Your task to perform on an android device: open app "Firefox Browser" (install if not already installed) Image 0: 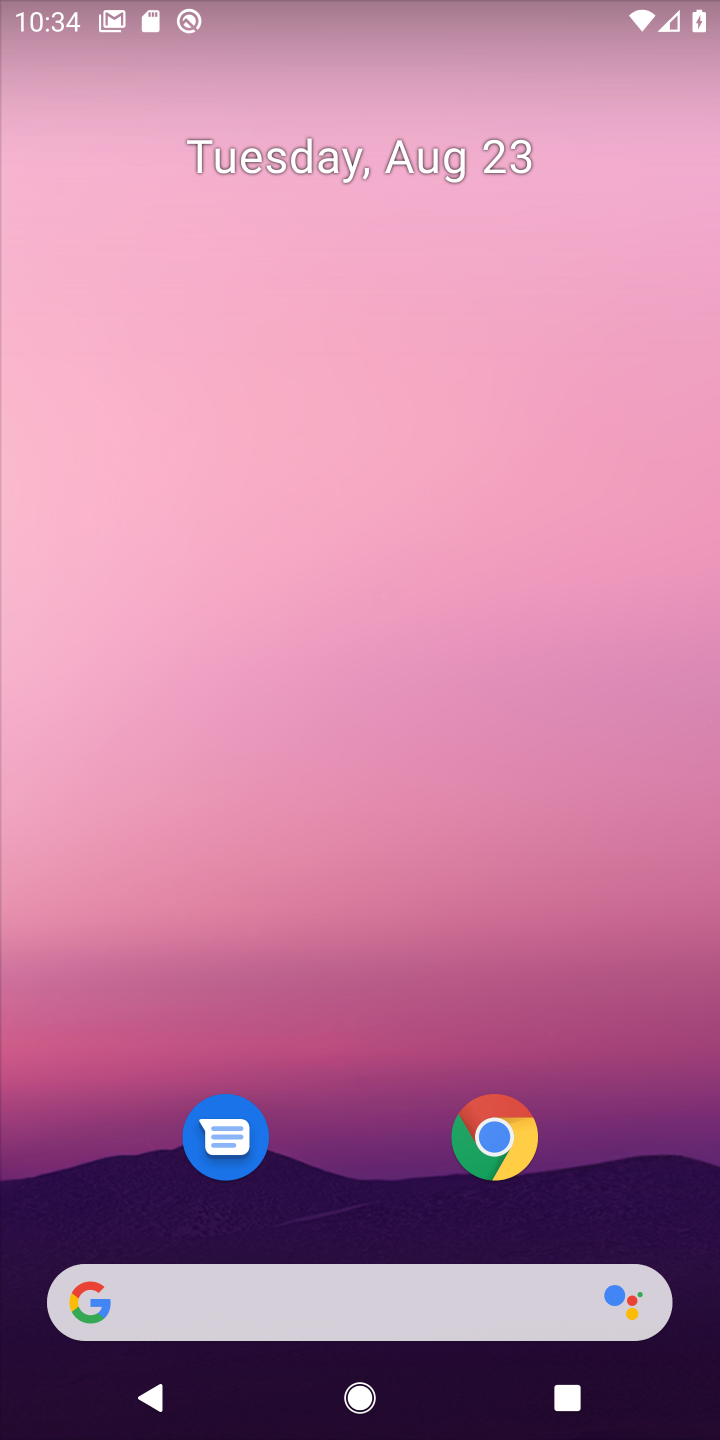
Step 0: drag from (448, 1080) to (459, 226)
Your task to perform on an android device: open app "Firefox Browser" (install if not already installed) Image 1: 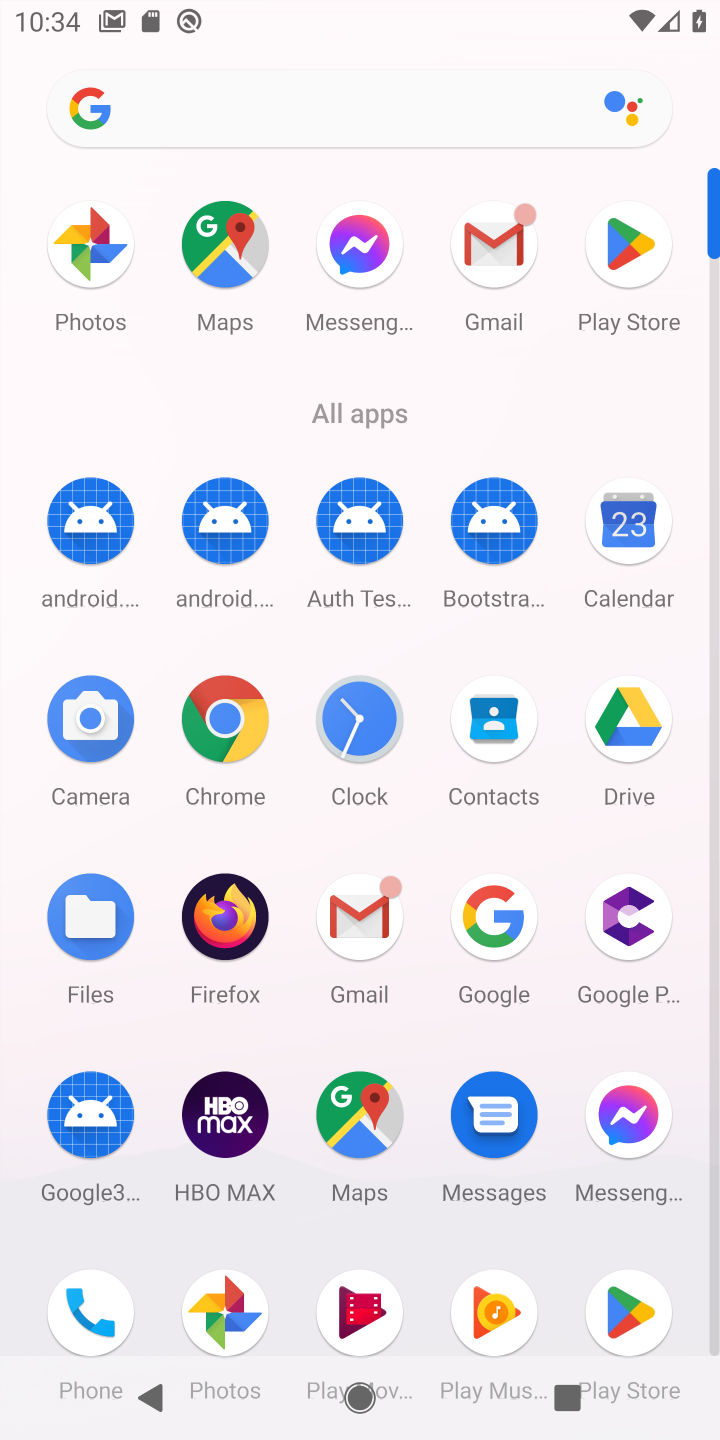
Step 1: click (618, 263)
Your task to perform on an android device: open app "Firefox Browser" (install if not already installed) Image 2: 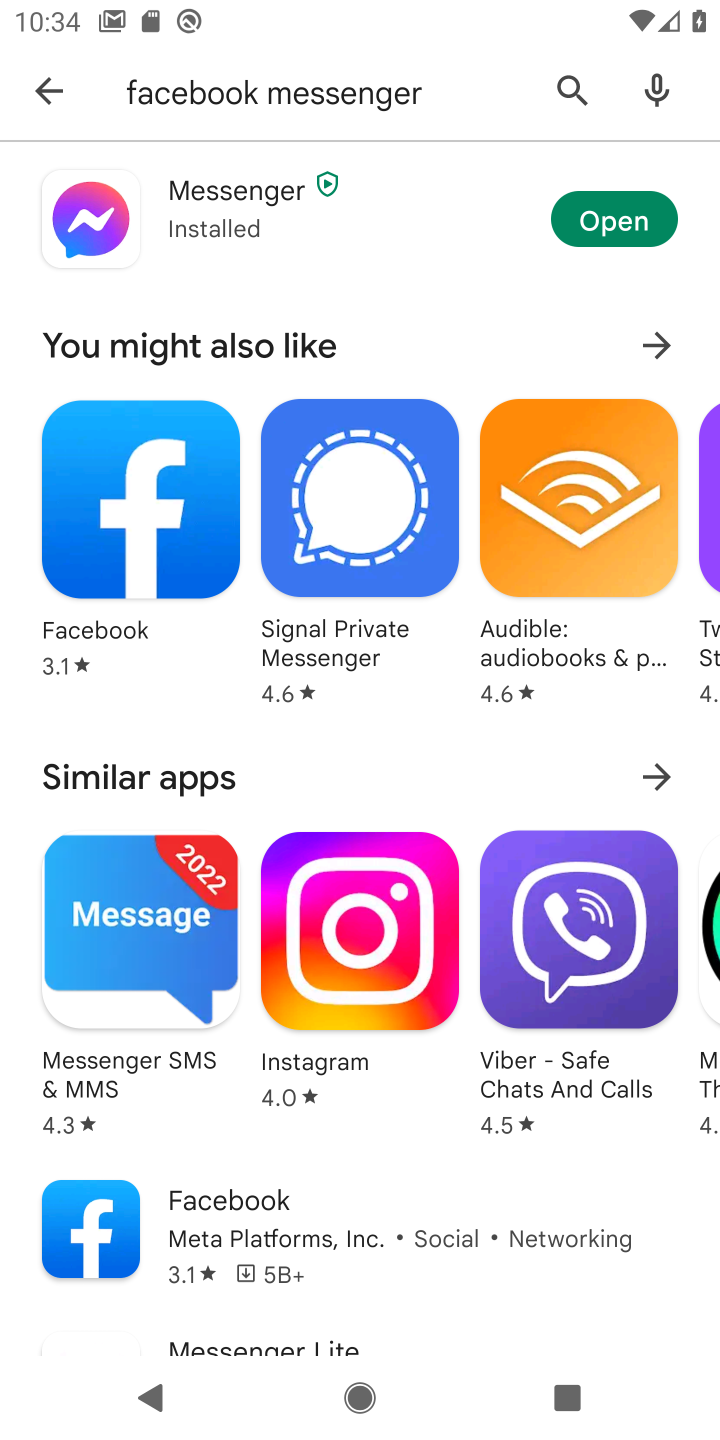
Step 2: click (236, 99)
Your task to perform on an android device: open app "Firefox Browser" (install if not already installed) Image 3: 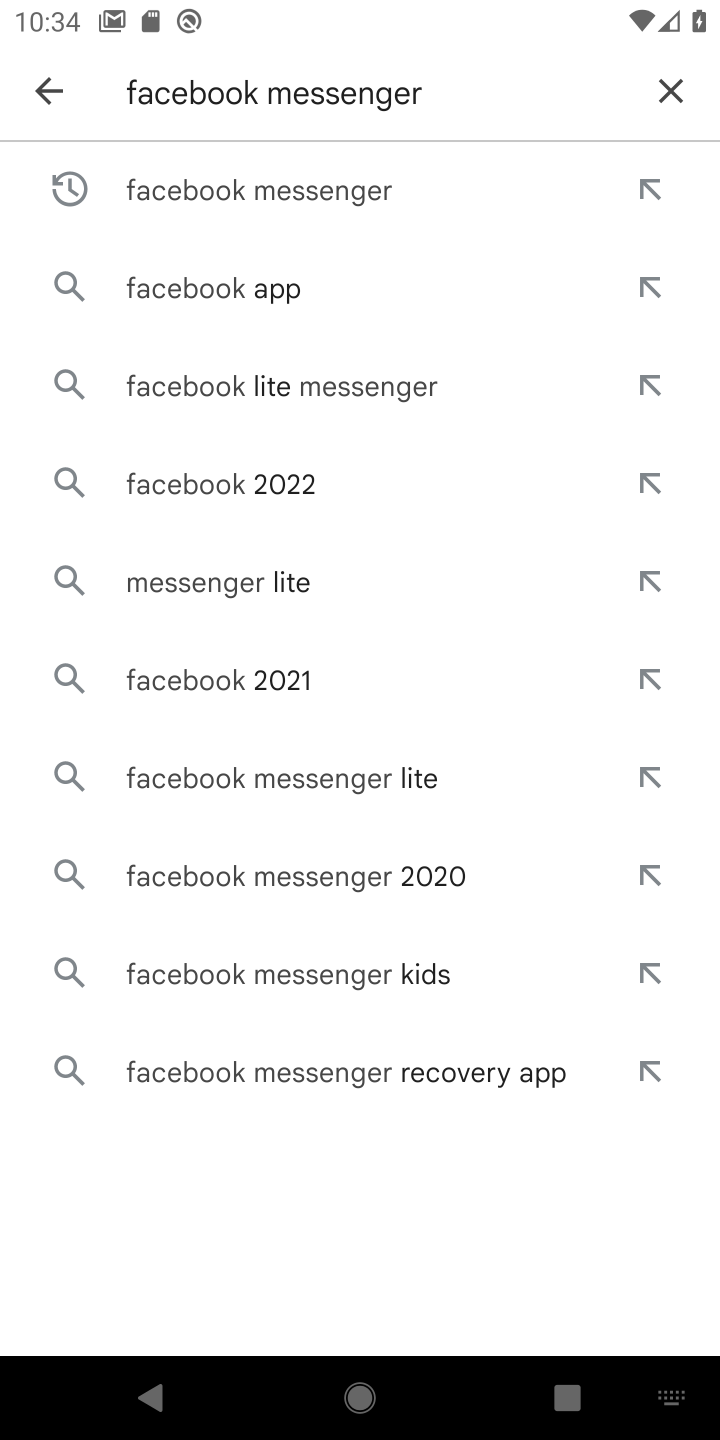
Step 3: click (651, 83)
Your task to perform on an android device: open app "Firefox Browser" (install if not already installed) Image 4: 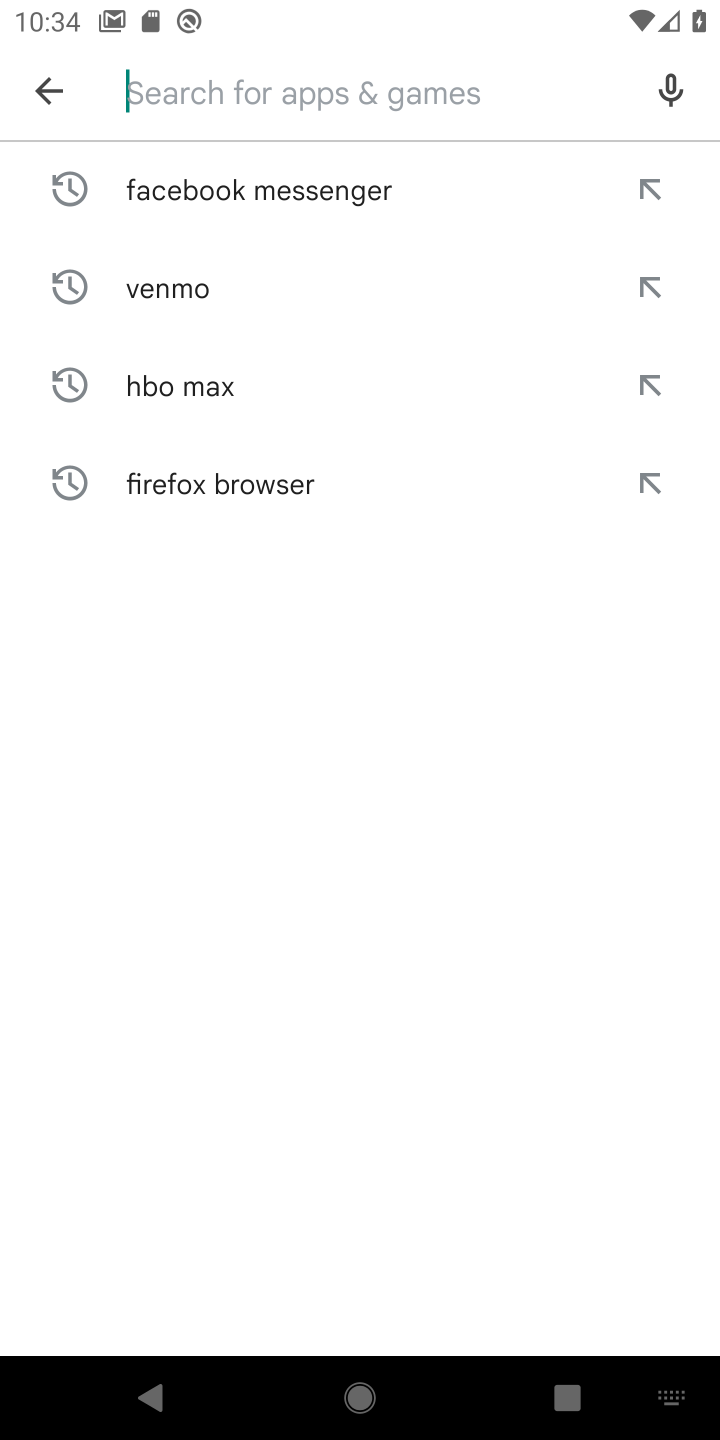
Step 4: type "firefox browser"
Your task to perform on an android device: open app "Firefox Browser" (install if not already installed) Image 5: 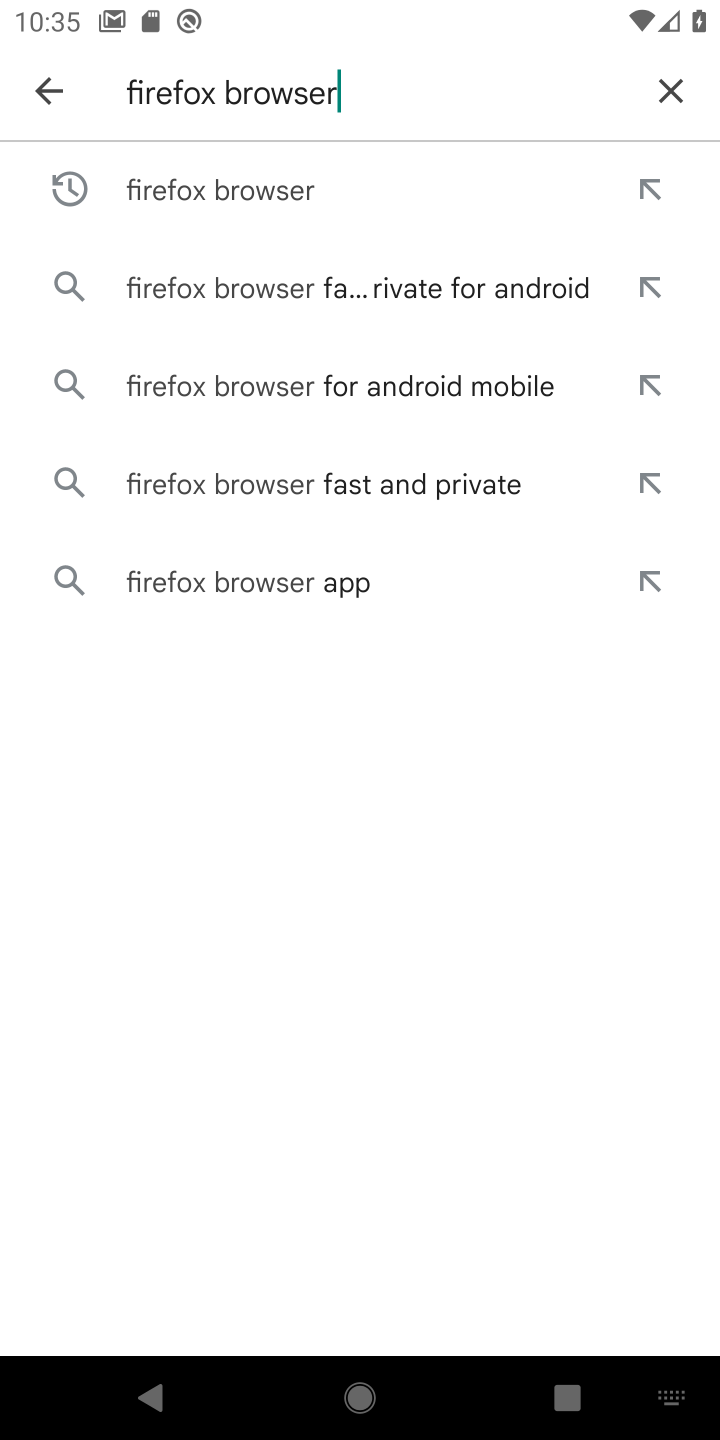
Step 5: click (263, 203)
Your task to perform on an android device: open app "Firefox Browser" (install if not already installed) Image 6: 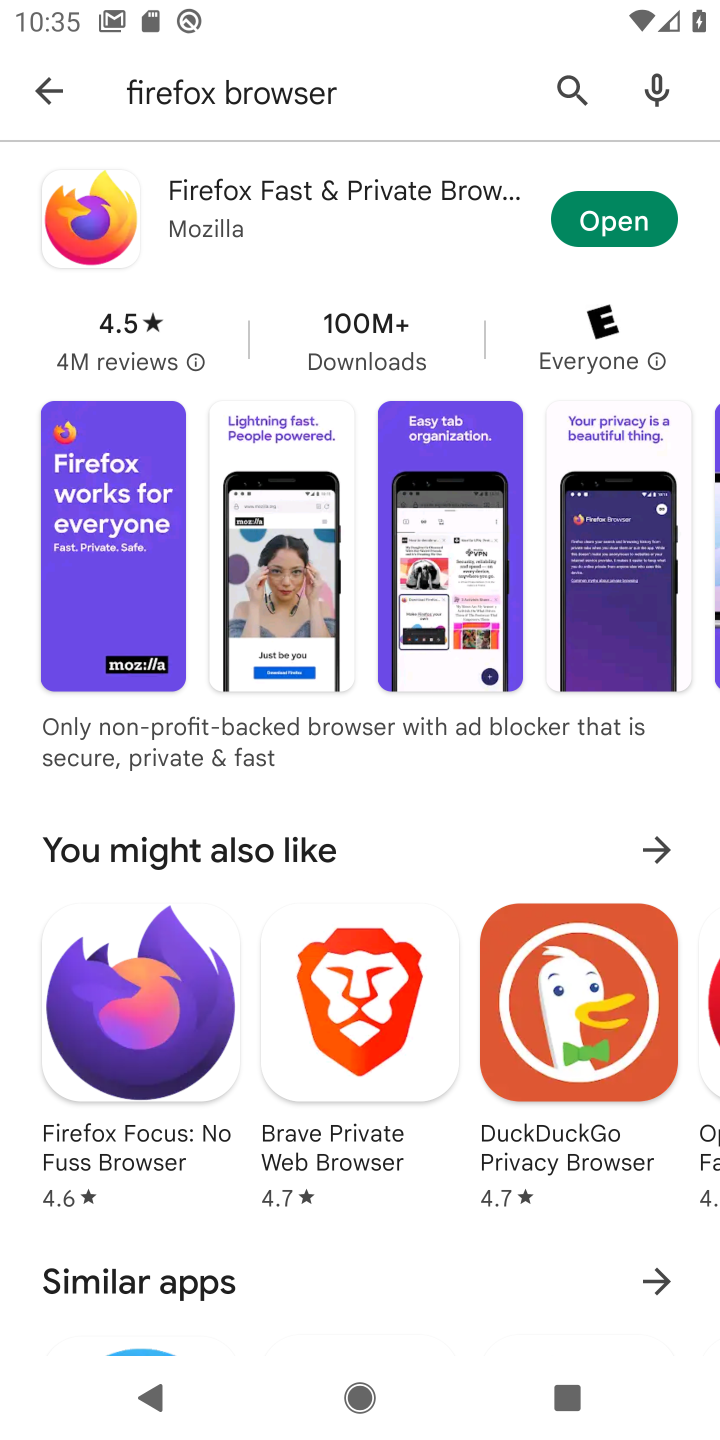
Step 6: click (630, 221)
Your task to perform on an android device: open app "Firefox Browser" (install if not already installed) Image 7: 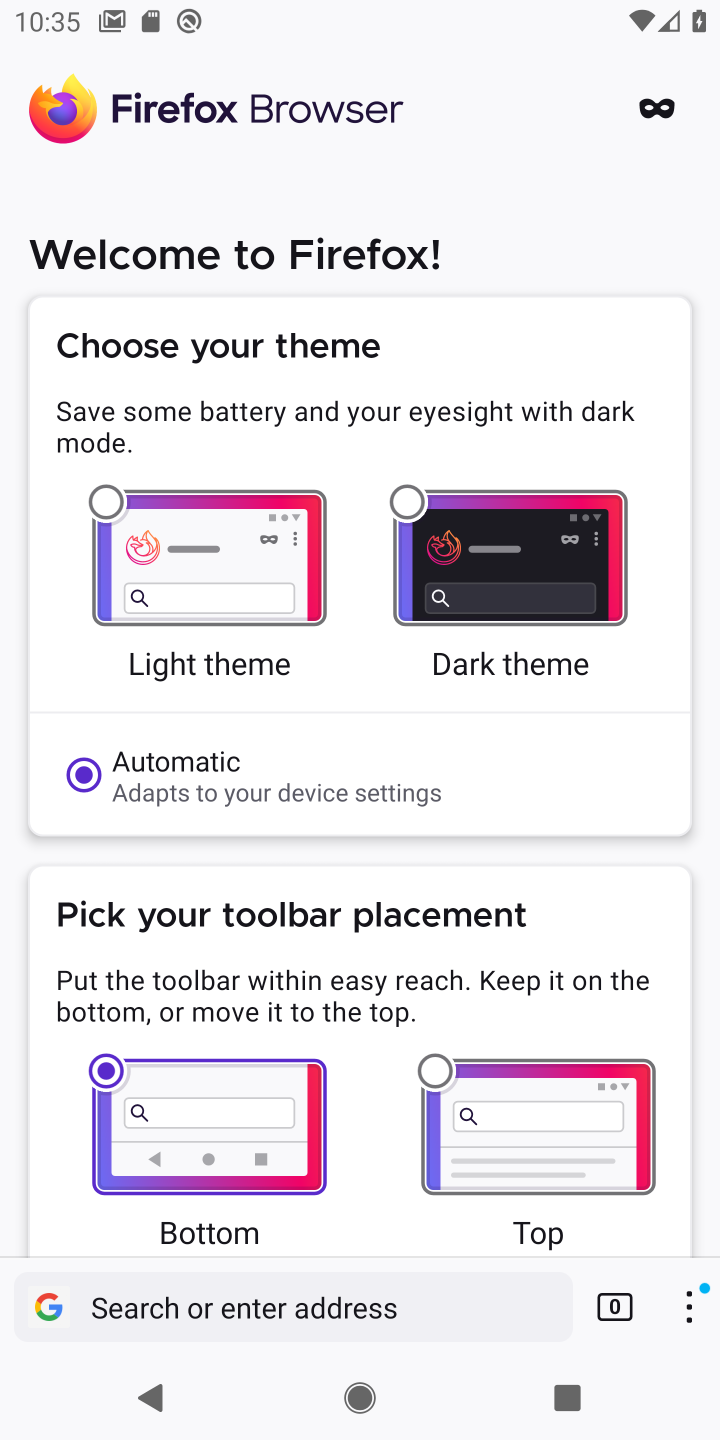
Step 7: task complete